Your task to perform on an android device: Open the calendar and show me this week's events Image 0: 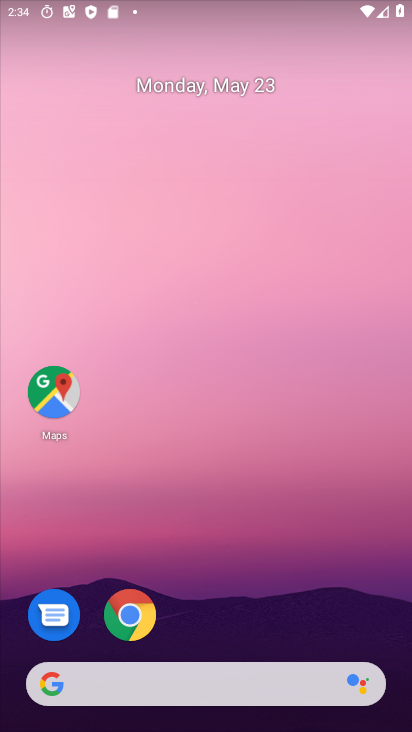
Step 0: drag from (256, 646) to (209, 27)
Your task to perform on an android device: Open the calendar and show me this week's events Image 1: 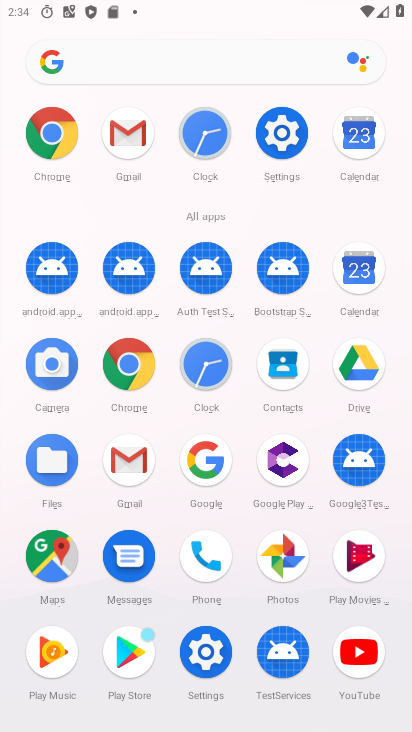
Step 1: click (362, 137)
Your task to perform on an android device: Open the calendar and show me this week's events Image 2: 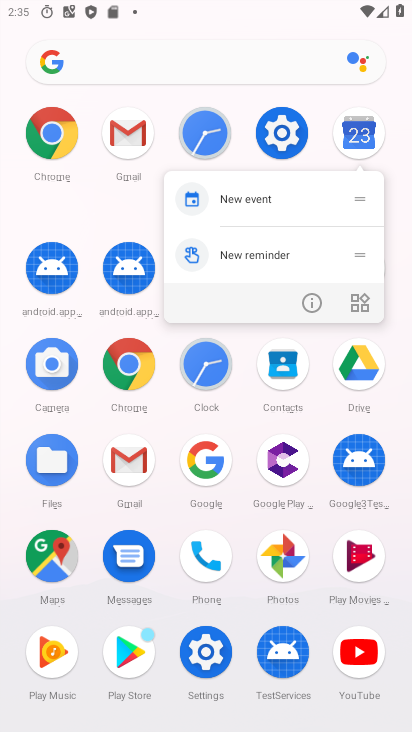
Step 2: click (362, 137)
Your task to perform on an android device: Open the calendar and show me this week's events Image 3: 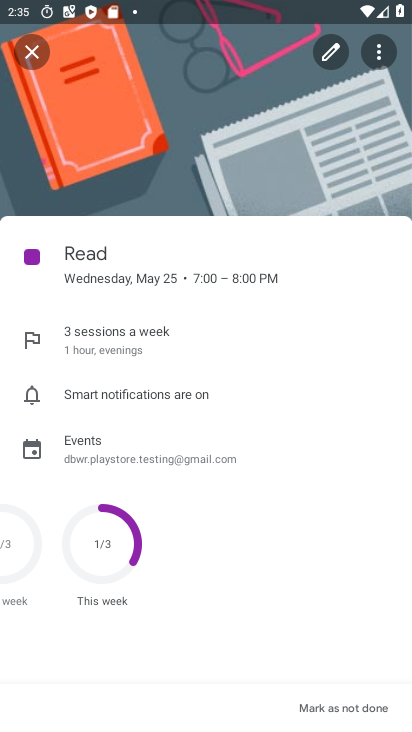
Step 3: click (26, 53)
Your task to perform on an android device: Open the calendar and show me this week's events Image 4: 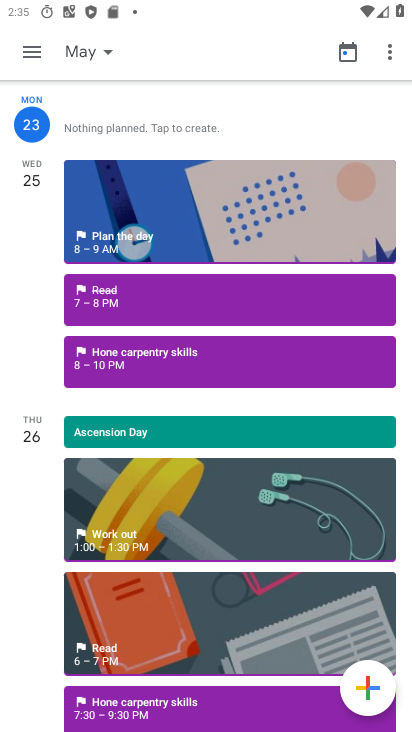
Step 4: click (32, 53)
Your task to perform on an android device: Open the calendar and show me this week's events Image 5: 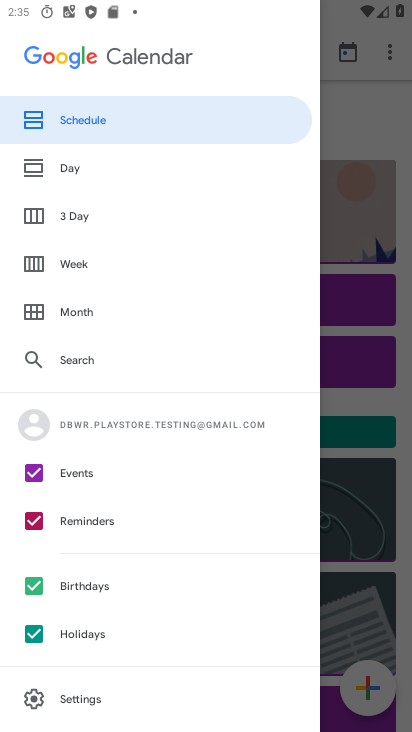
Step 5: click (61, 262)
Your task to perform on an android device: Open the calendar and show me this week's events Image 6: 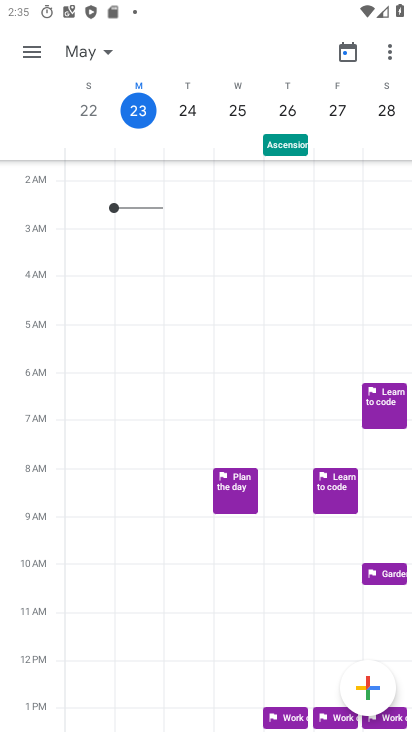
Step 6: click (34, 49)
Your task to perform on an android device: Open the calendar and show me this week's events Image 7: 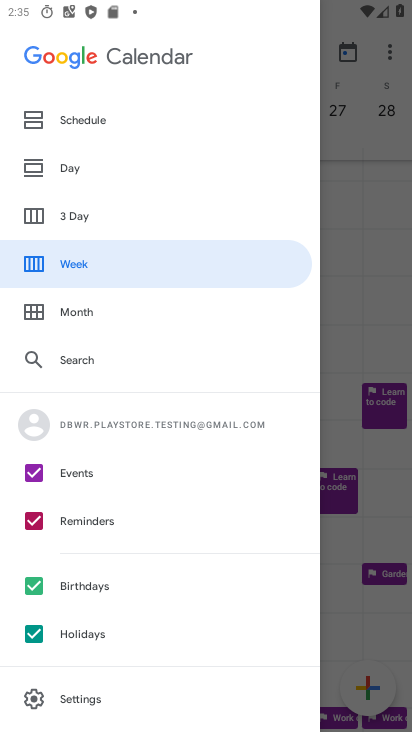
Step 7: click (31, 588)
Your task to perform on an android device: Open the calendar and show me this week's events Image 8: 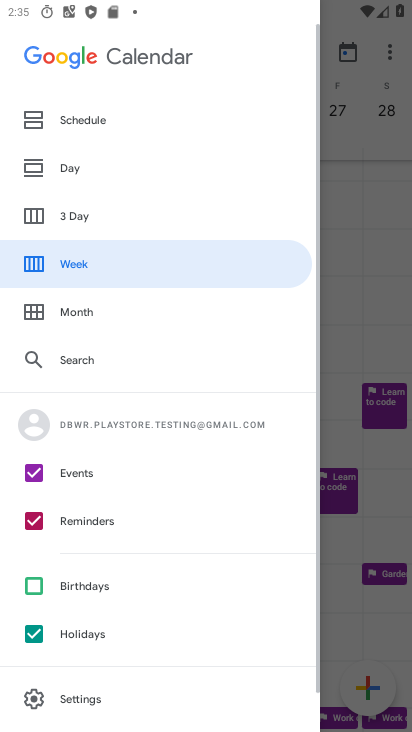
Step 8: click (28, 637)
Your task to perform on an android device: Open the calendar and show me this week's events Image 9: 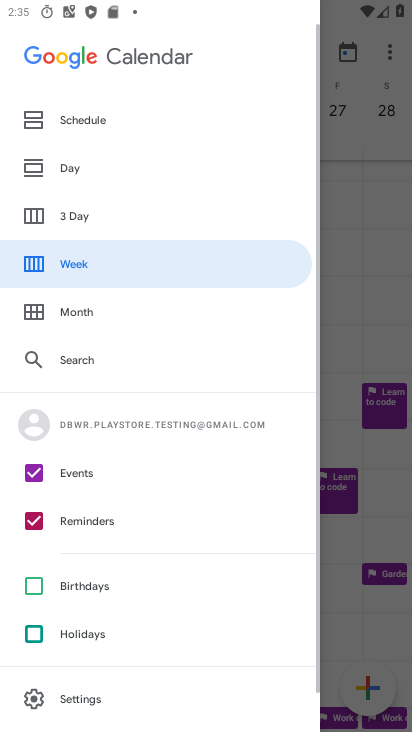
Step 9: click (40, 521)
Your task to perform on an android device: Open the calendar and show me this week's events Image 10: 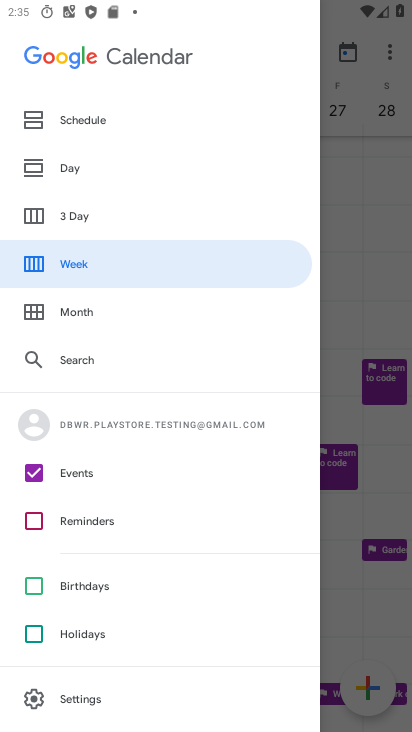
Step 10: click (30, 264)
Your task to perform on an android device: Open the calendar and show me this week's events Image 11: 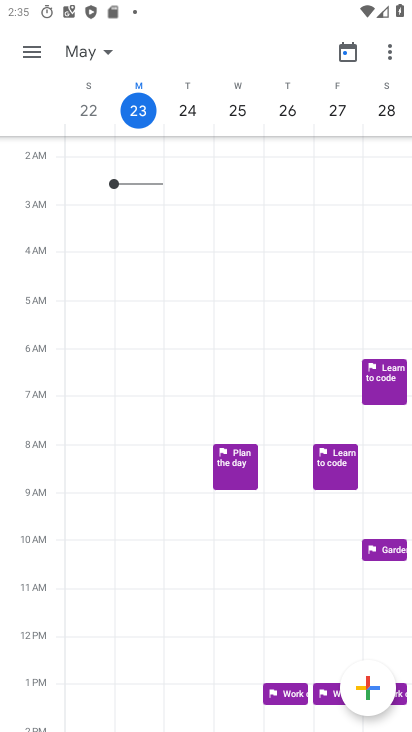
Step 11: task complete